Your task to perform on an android device: Go to display settings Image 0: 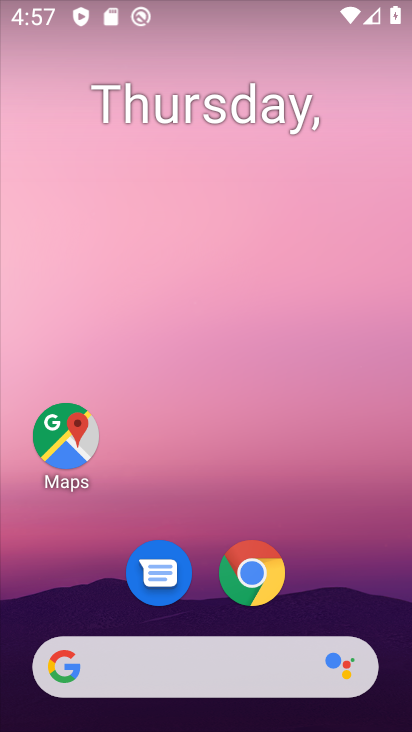
Step 0: drag from (319, 562) to (246, 80)
Your task to perform on an android device: Go to display settings Image 1: 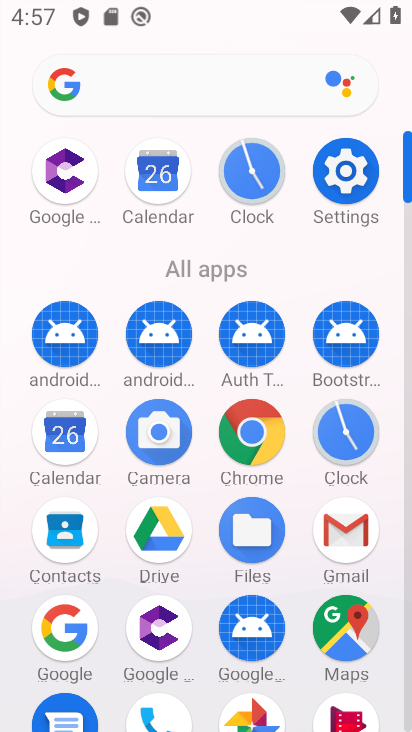
Step 1: drag from (0, 535) to (23, 181)
Your task to perform on an android device: Go to display settings Image 2: 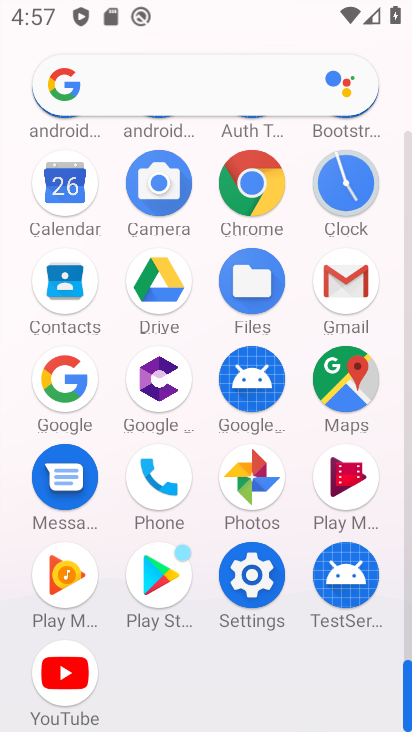
Step 2: click (248, 567)
Your task to perform on an android device: Go to display settings Image 3: 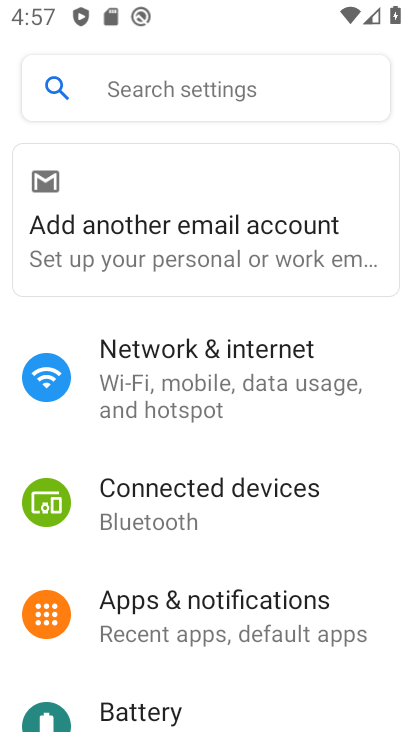
Step 3: drag from (304, 574) to (300, 185)
Your task to perform on an android device: Go to display settings Image 4: 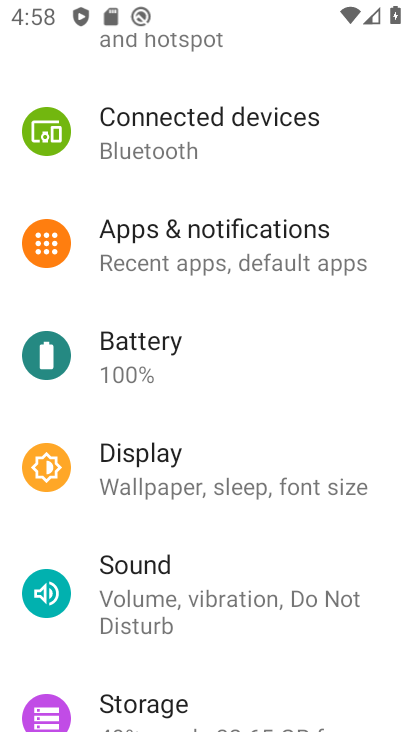
Step 4: drag from (250, 268) to (250, 553)
Your task to perform on an android device: Go to display settings Image 5: 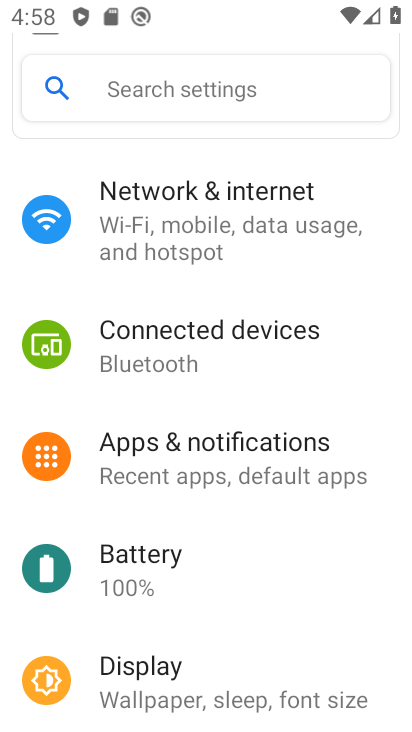
Step 5: click (217, 249)
Your task to perform on an android device: Go to display settings Image 6: 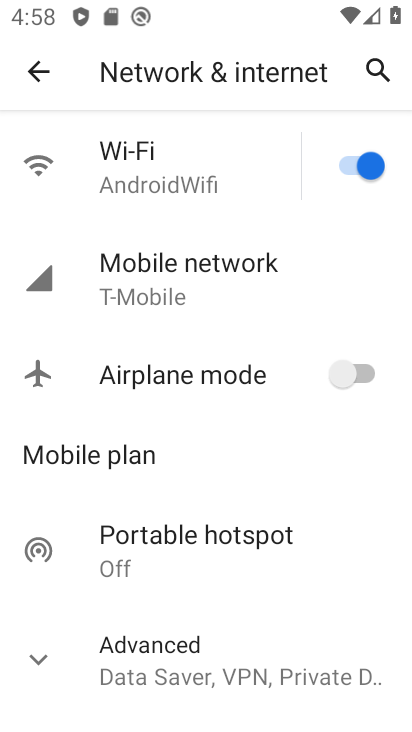
Step 6: click (42, 656)
Your task to perform on an android device: Go to display settings Image 7: 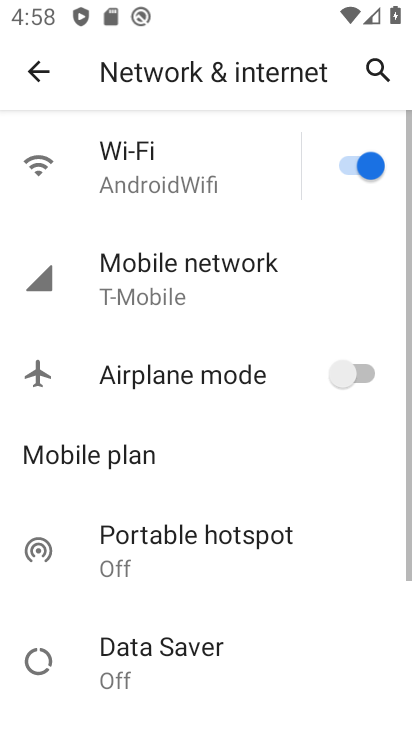
Step 7: drag from (164, 636) to (214, 204)
Your task to perform on an android device: Go to display settings Image 8: 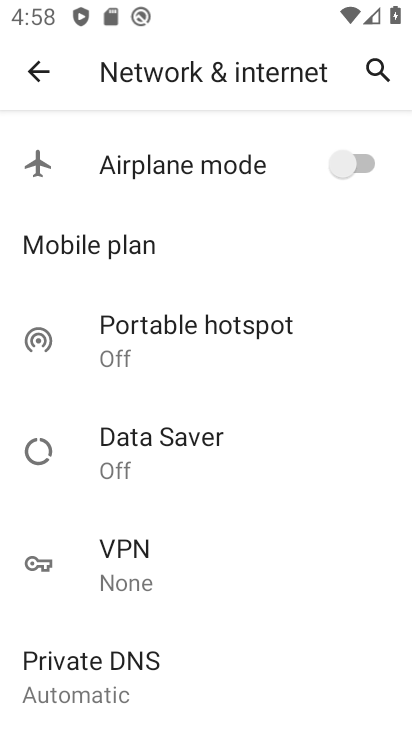
Step 8: drag from (192, 593) to (220, 222)
Your task to perform on an android device: Go to display settings Image 9: 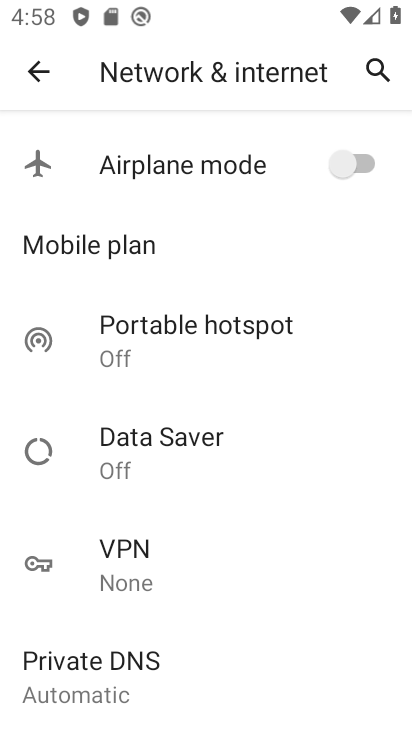
Step 9: click (38, 71)
Your task to perform on an android device: Go to display settings Image 10: 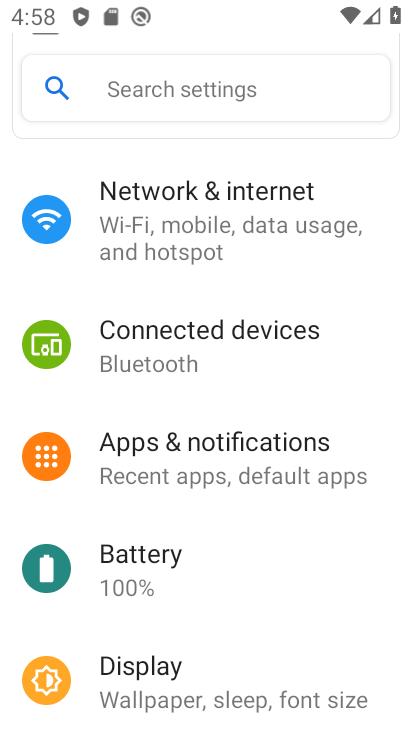
Step 10: click (175, 700)
Your task to perform on an android device: Go to display settings Image 11: 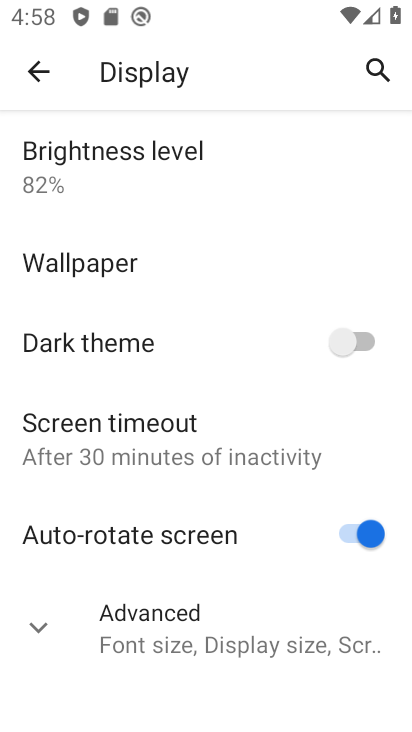
Step 11: click (46, 630)
Your task to perform on an android device: Go to display settings Image 12: 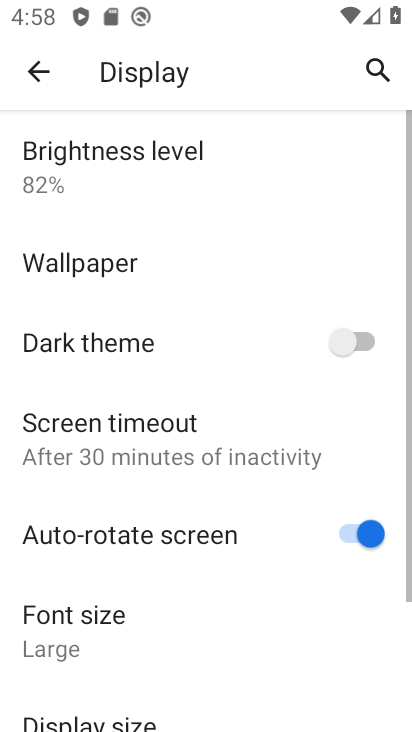
Step 12: task complete